Your task to perform on an android device: move a message to another label in the gmail app Image 0: 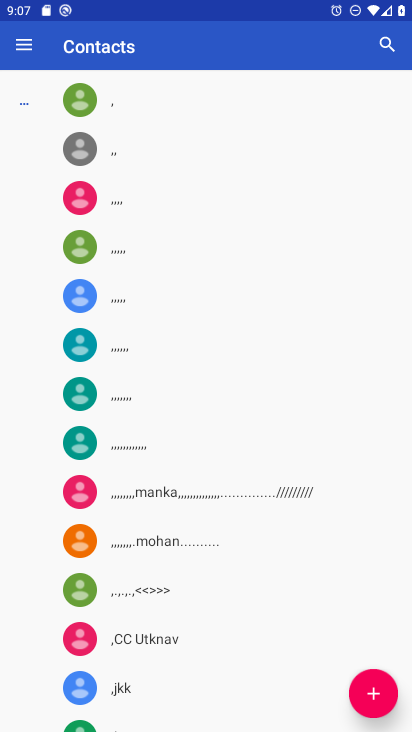
Step 0: press home button
Your task to perform on an android device: move a message to another label in the gmail app Image 1: 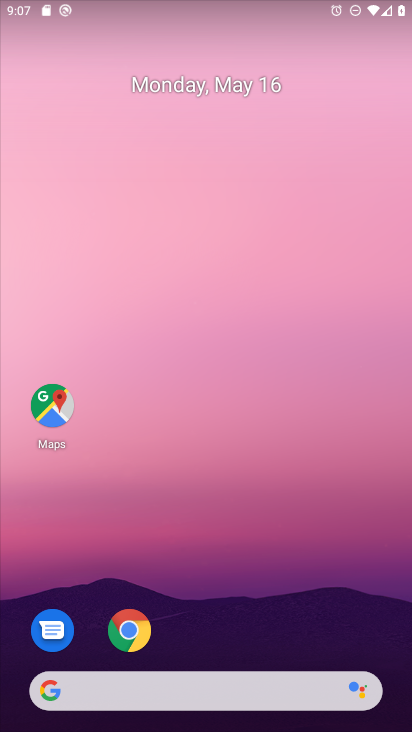
Step 1: drag from (289, 600) to (297, 382)
Your task to perform on an android device: move a message to another label in the gmail app Image 2: 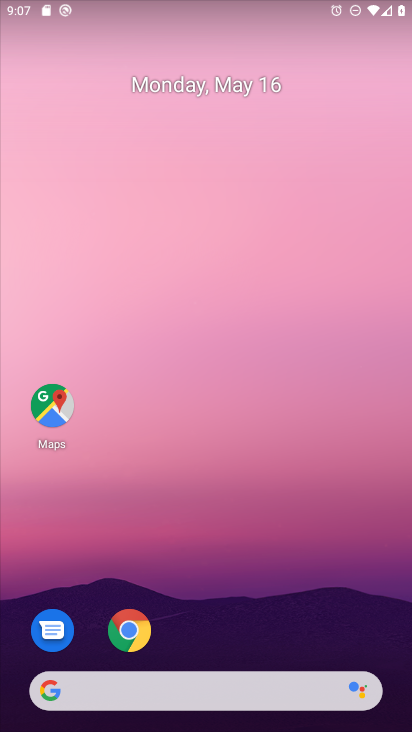
Step 2: drag from (316, 585) to (385, 187)
Your task to perform on an android device: move a message to another label in the gmail app Image 3: 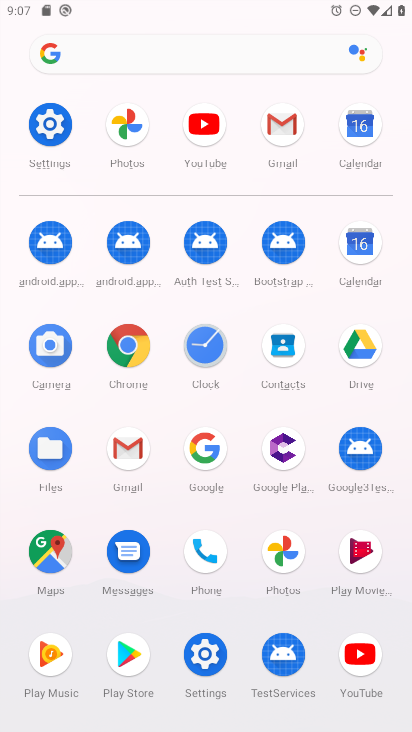
Step 3: click (282, 135)
Your task to perform on an android device: move a message to another label in the gmail app Image 4: 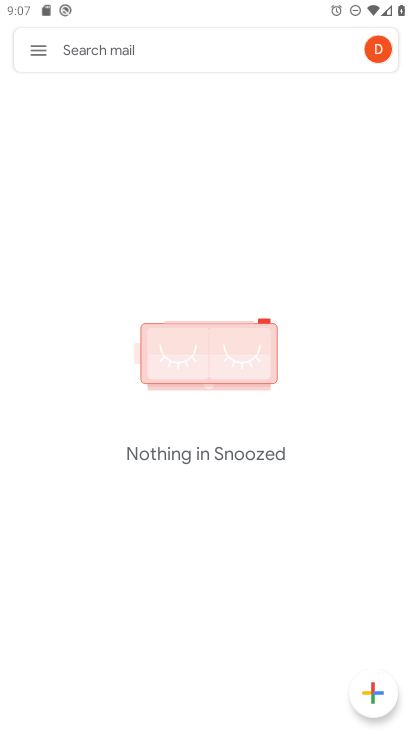
Step 4: click (26, 66)
Your task to perform on an android device: move a message to another label in the gmail app Image 5: 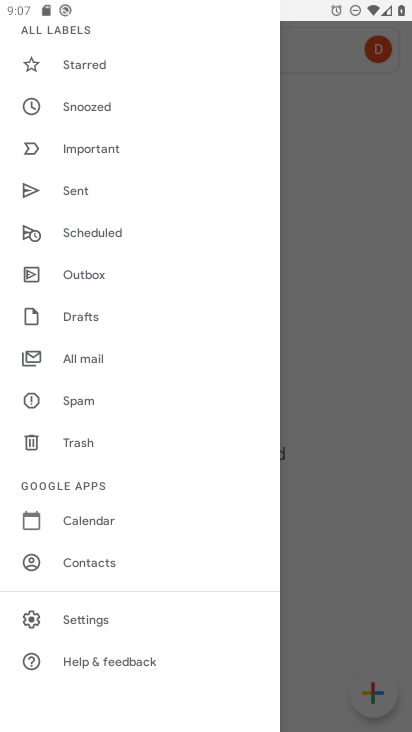
Step 5: drag from (113, 510) to (145, 142)
Your task to perform on an android device: move a message to another label in the gmail app Image 6: 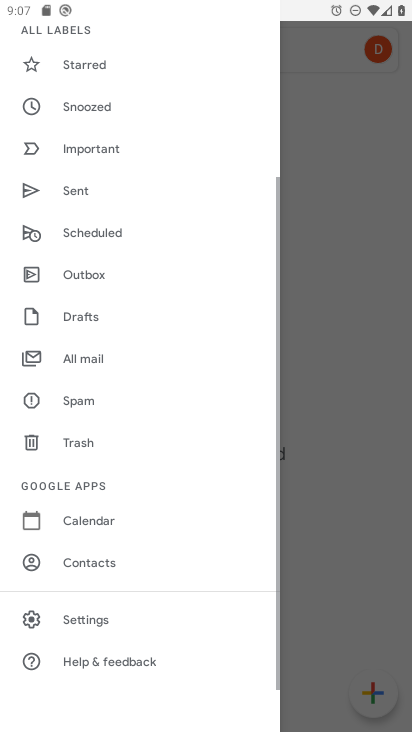
Step 6: click (148, 609)
Your task to perform on an android device: move a message to another label in the gmail app Image 7: 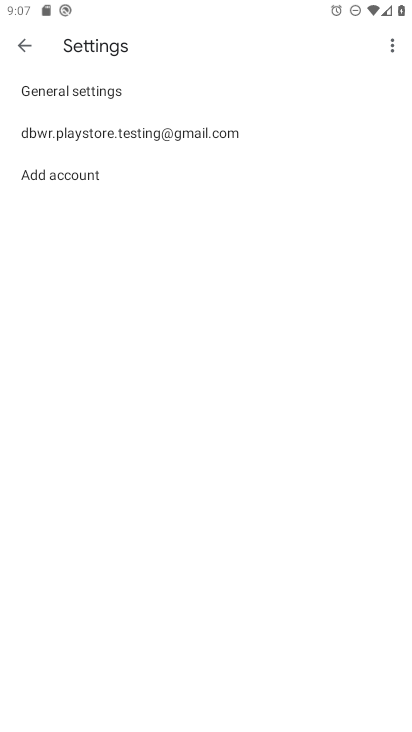
Step 7: click (400, 44)
Your task to perform on an android device: move a message to another label in the gmail app Image 8: 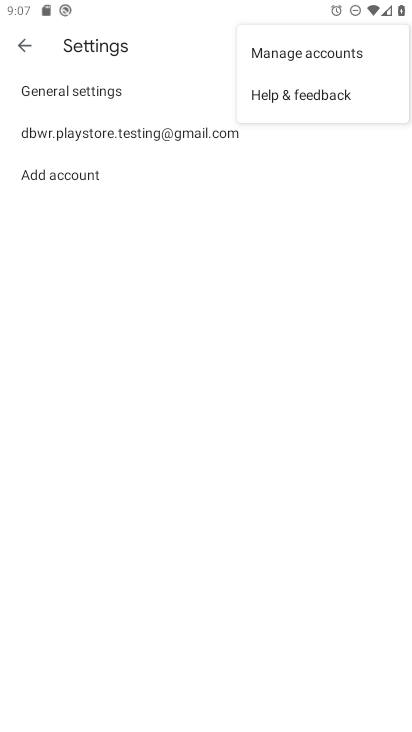
Step 8: task complete